Your task to perform on an android device: change the clock display to show seconds Image 0: 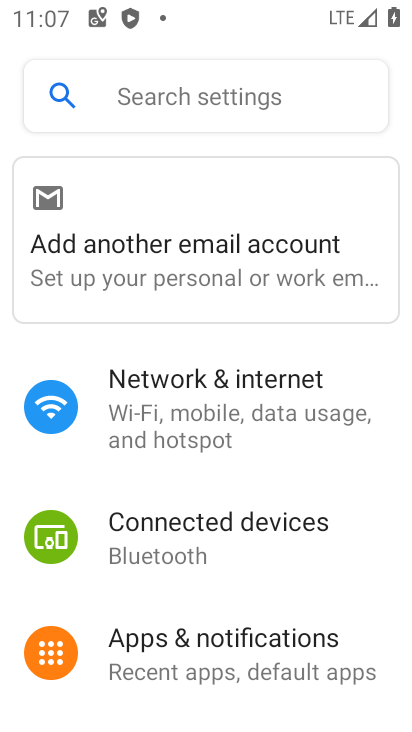
Step 0: press home button
Your task to perform on an android device: change the clock display to show seconds Image 1: 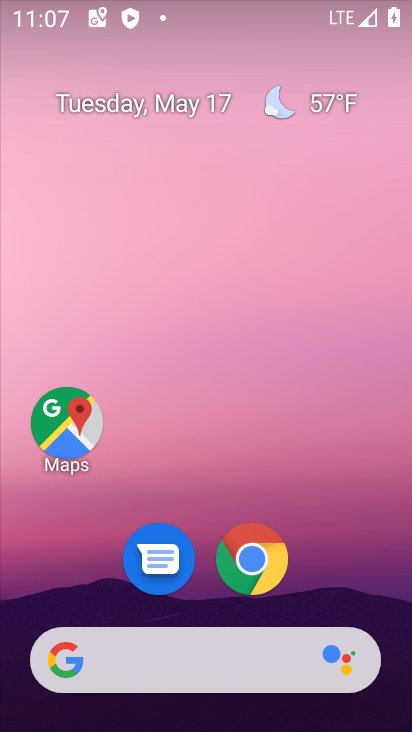
Step 1: drag from (370, 620) to (282, 14)
Your task to perform on an android device: change the clock display to show seconds Image 2: 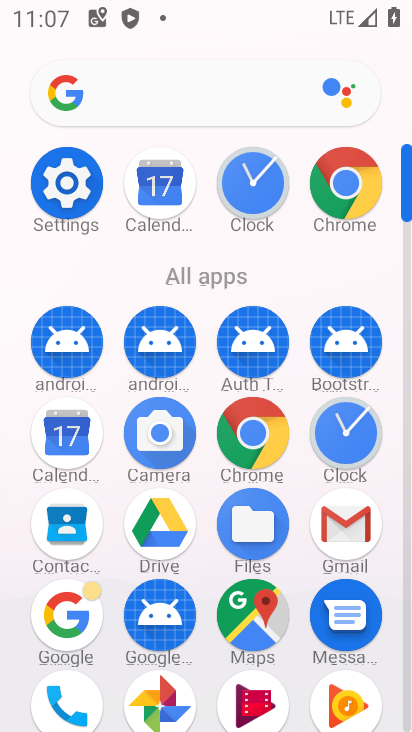
Step 2: click (348, 454)
Your task to perform on an android device: change the clock display to show seconds Image 3: 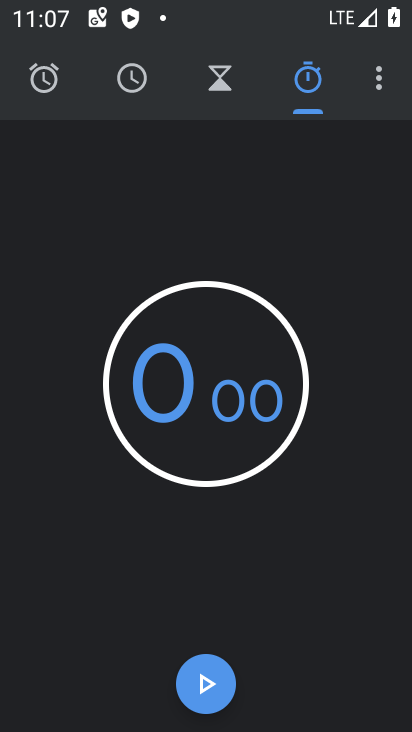
Step 3: click (376, 89)
Your task to perform on an android device: change the clock display to show seconds Image 4: 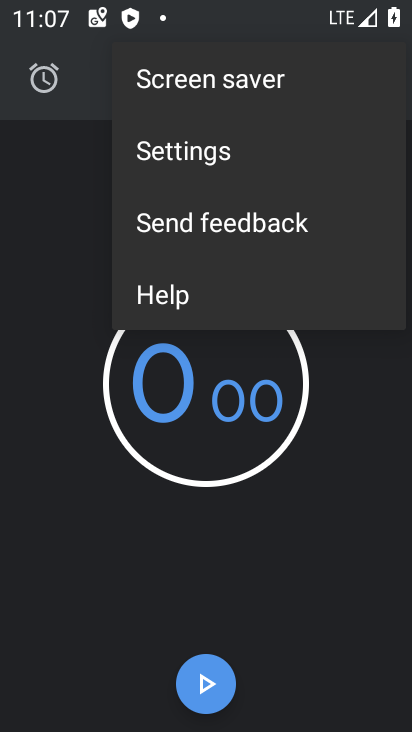
Step 4: click (237, 162)
Your task to perform on an android device: change the clock display to show seconds Image 5: 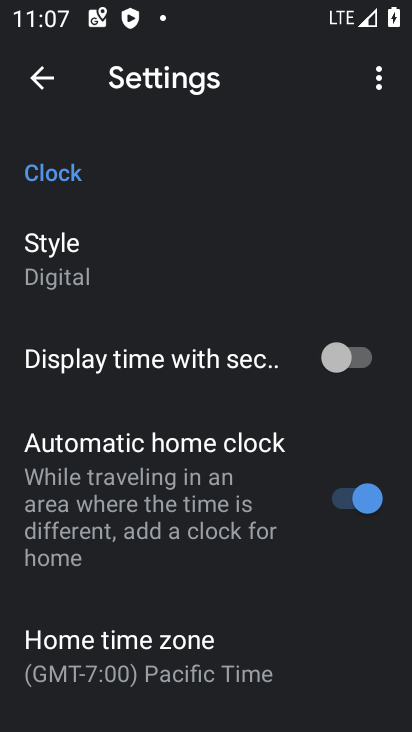
Step 5: click (339, 373)
Your task to perform on an android device: change the clock display to show seconds Image 6: 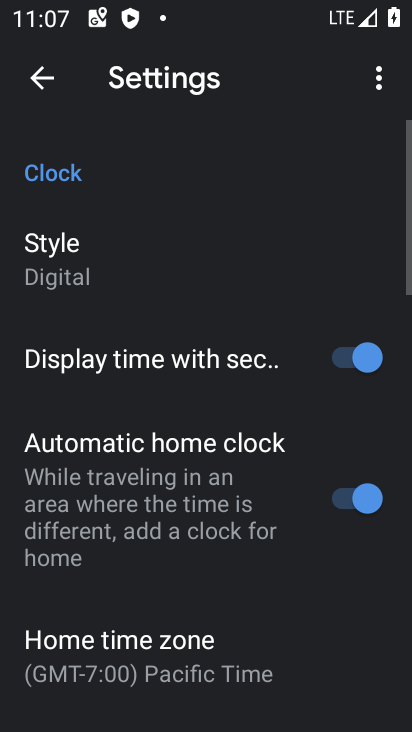
Step 6: task complete